Your task to perform on an android device: Open the calendar app, open the side menu, and click the "Day" option Image 0: 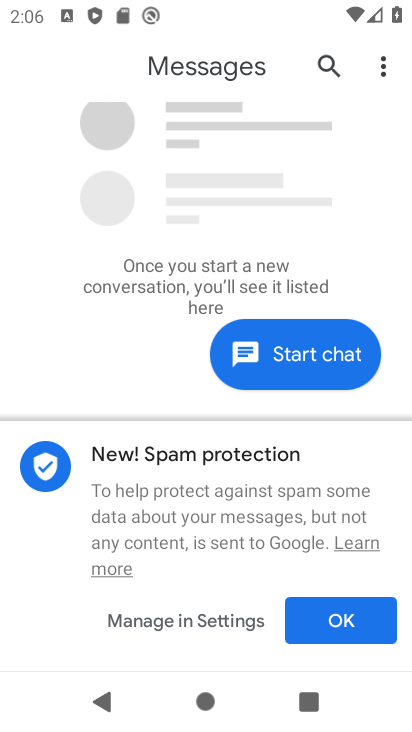
Step 0: press home button
Your task to perform on an android device: Open the calendar app, open the side menu, and click the "Day" option Image 1: 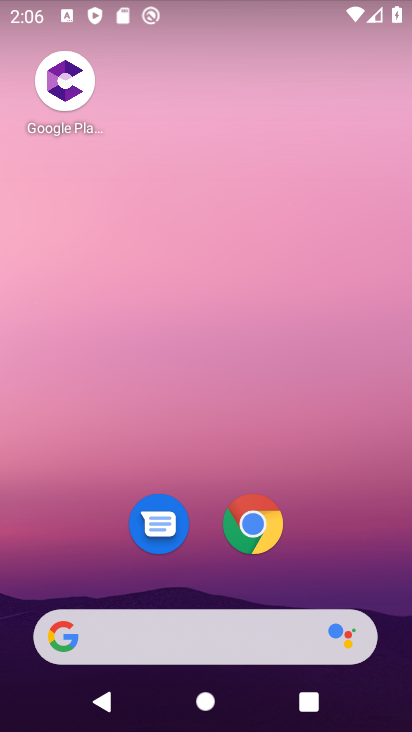
Step 1: drag from (202, 451) to (204, 0)
Your task to perform on an android device: Open the calendar app, open the side menu, and click the "Day" option Image 2: 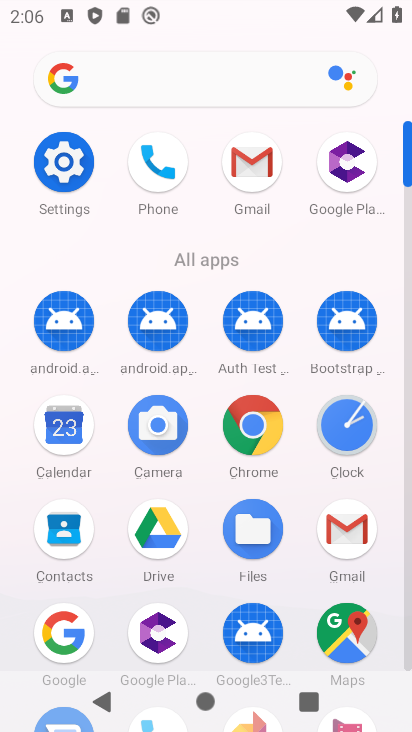
Step 2: click (66, 430)
Your task to perform on an android device: Open the calendar app, open the side menu, and click the "Day" option Image 3: 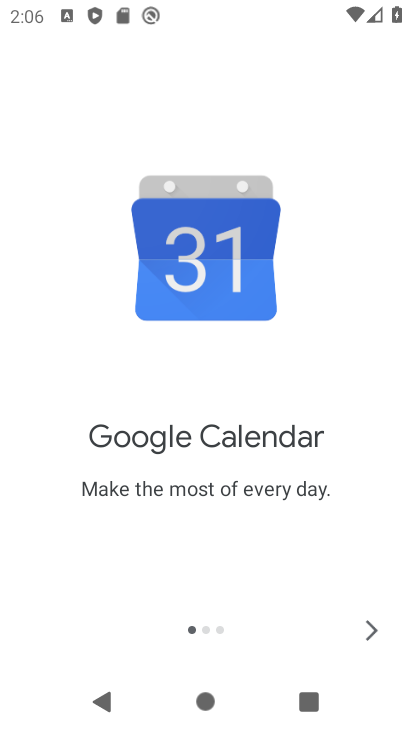
Step 3: click (375, 619)
Your task to perform on an android device: Open the calendar app, open the side menu, and click the "Day" option Image 4: 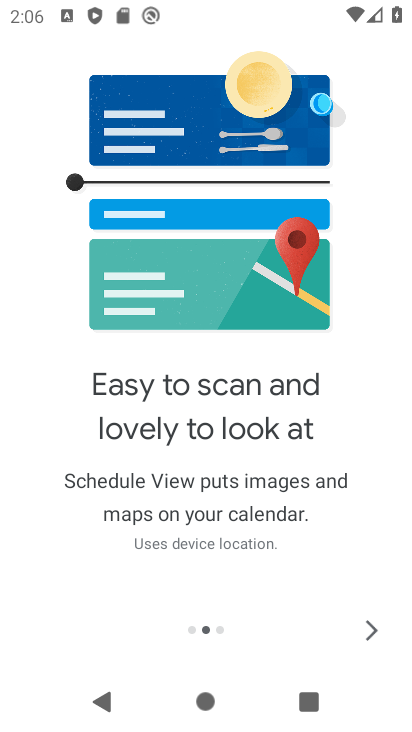
Step 4: click (375, 621)
Your task to perform on an android device: Open the calendar app, open the side menu, and click the "Day" option Image 5: 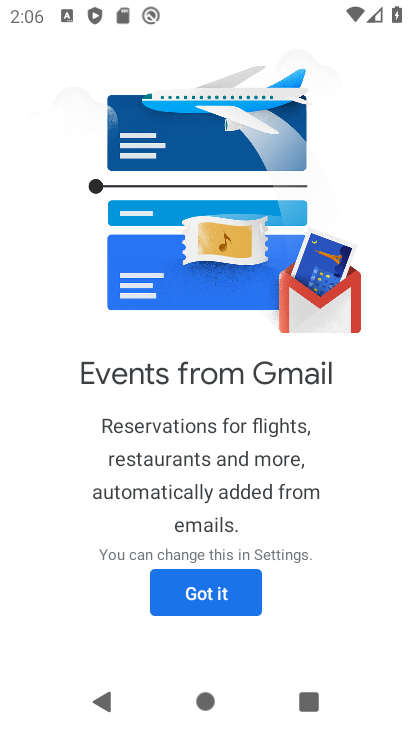
Step 5: click (242, 586)
Your task to perform on an android device: Open the calendar app, open the side menu, and click the "Day" option Image 6: 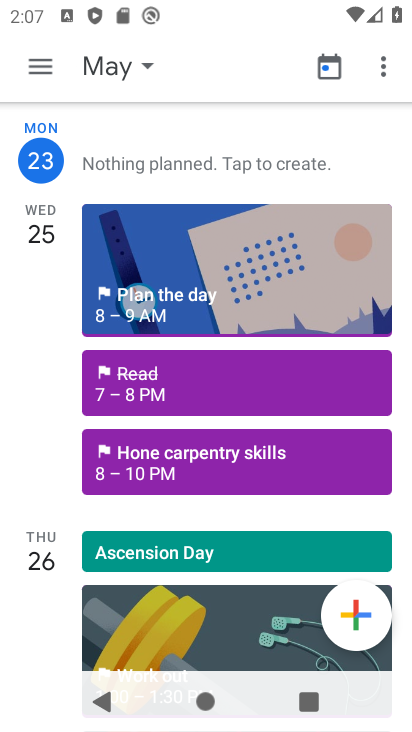
Step 6: click (42, 65)
Your task to perform on an android device: Open the calendar app, open the side menu, and click the "Day" option Image 7: 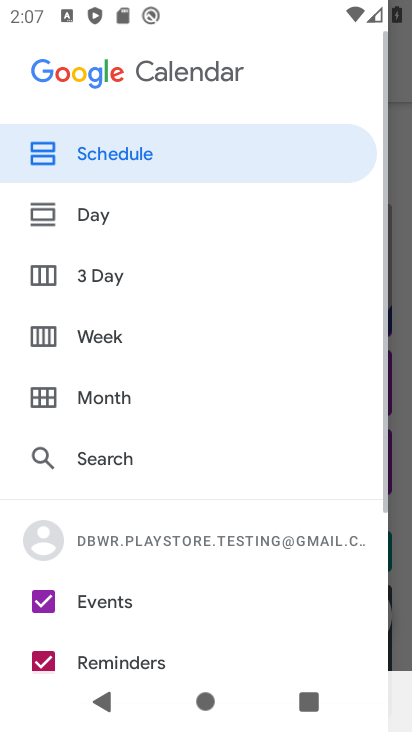
Step 7: click (60, 211)
Your task to perform on an android device: Open the calendar app, open the side menu, and click the "Day" option Image 8: 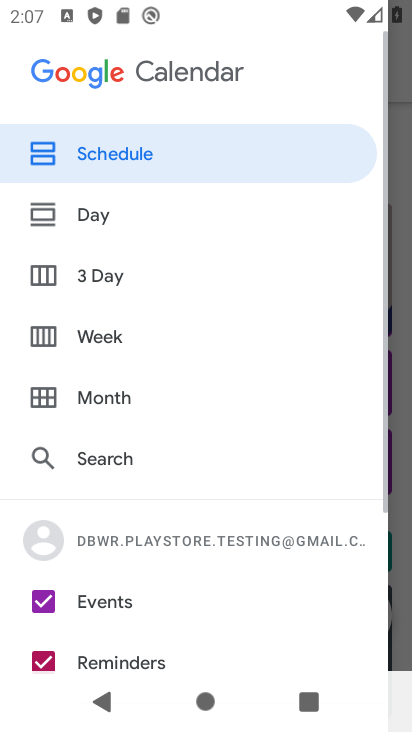
Step 8: click (52, 205)
Your task to perform on an android device: Open the calendar app, open the side menu, and click the "Day" option Image 9: 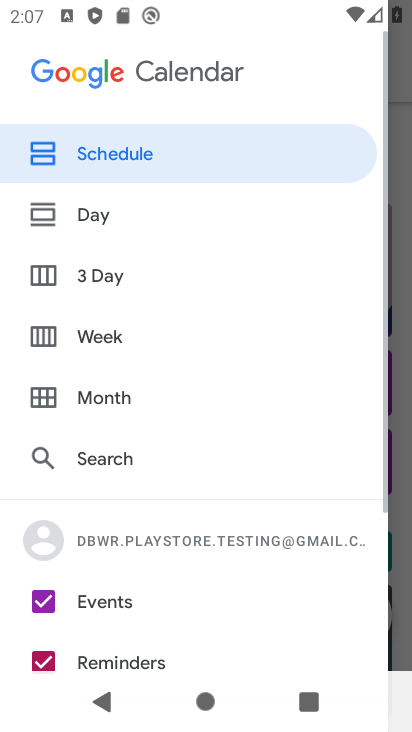
Step 9: click (44, 208)
Your task to perform on an android device: Open the calendar app, open the side menu, and click the "Day" option Image 10: 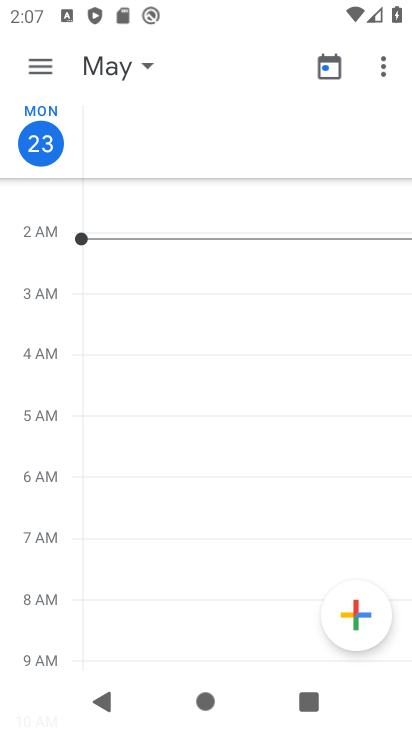
Step 10: task complete